Your task to perform on an android device: set default search engine in the chrome app Image 0: 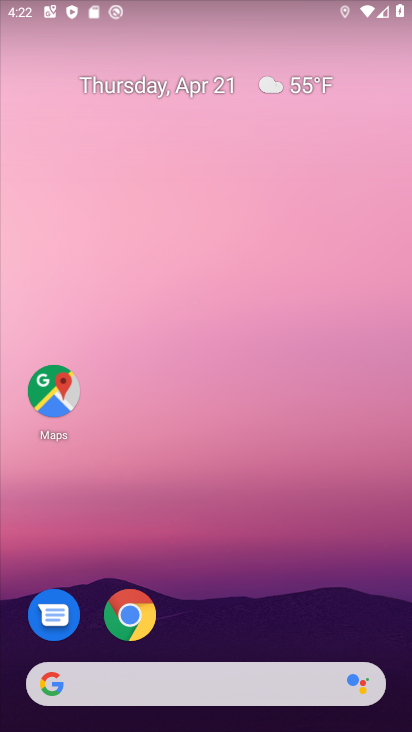
Step 0: click (127, 608)
Your task to perform on an android device: set default search engine in the chrome app Image 1: 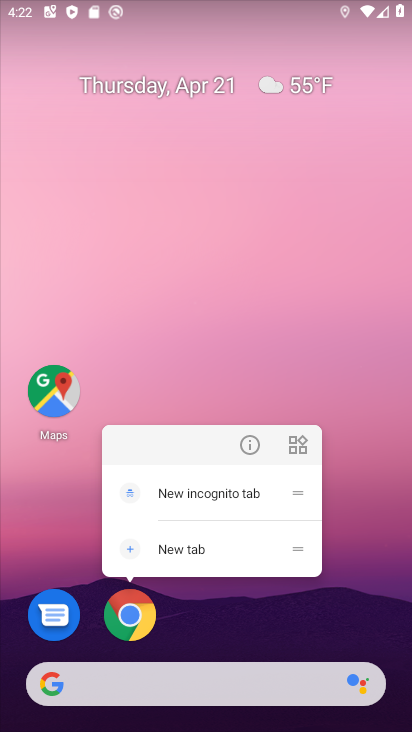
Step 1: click (127, 608)
Your task to perform on an android device: set default search engine in the chrome app Image 2: 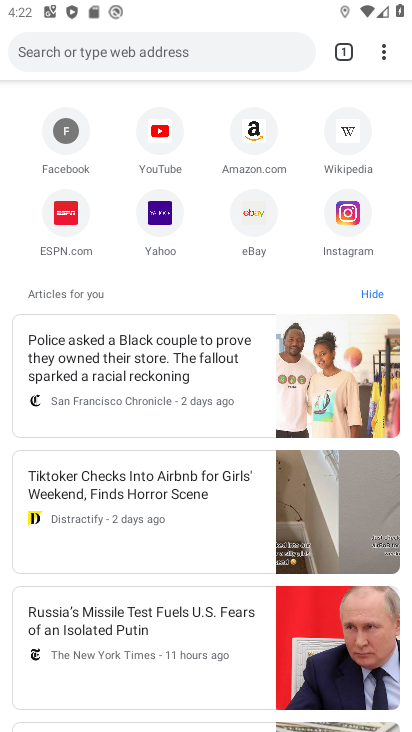
Step 2: click (376, 58)
Your task to perform on an android device: set default search engine in the chrome app Image 3: 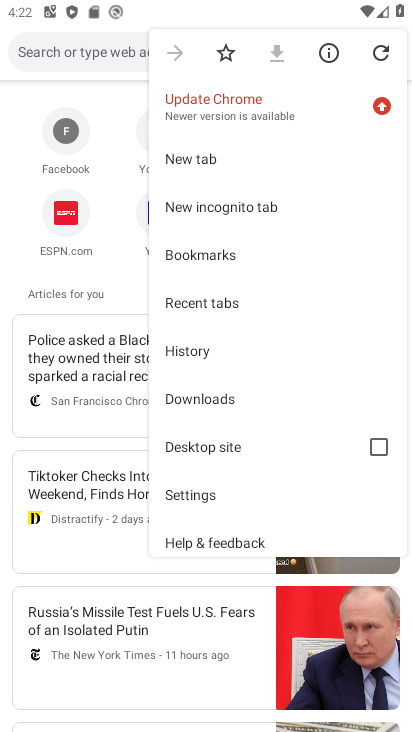
Step 3: click (211, 496)
Your task to perform on an android device: set default search engine in the chrome app Image 4: 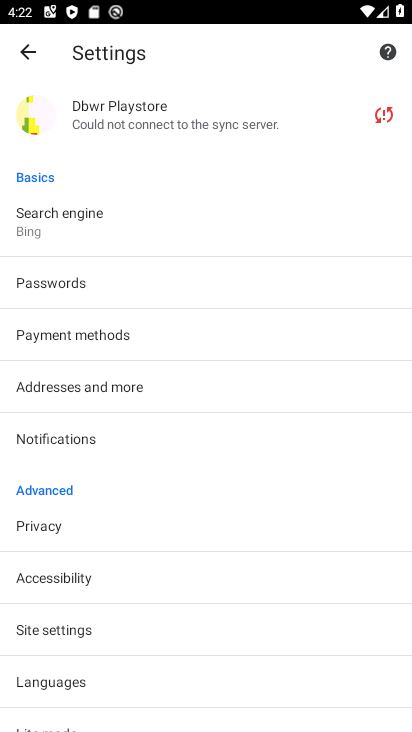
Step 4: click (104, 235)
Your task to perform on an android device: set default search engine in the chrome app Image 5: 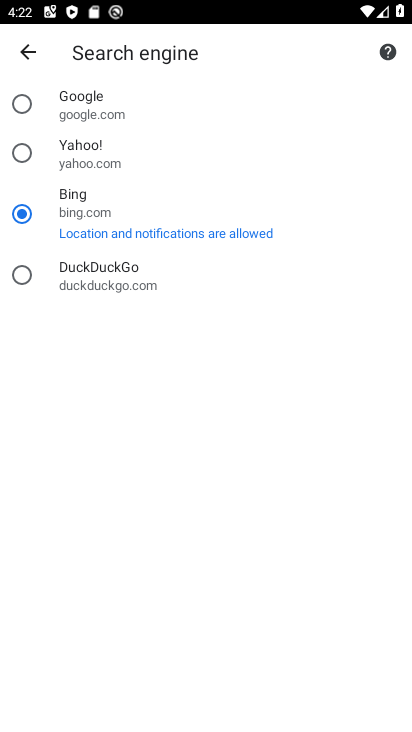
Step 5: click (74, 107)
Your task to perform on an android device: set default search engine in the chrome app Image 6: 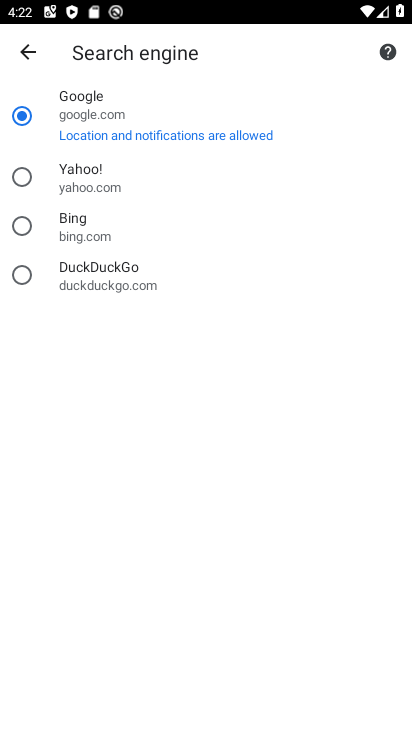
Step 6: task complete